Your task to perform on an android device: See recent photos Image 0: 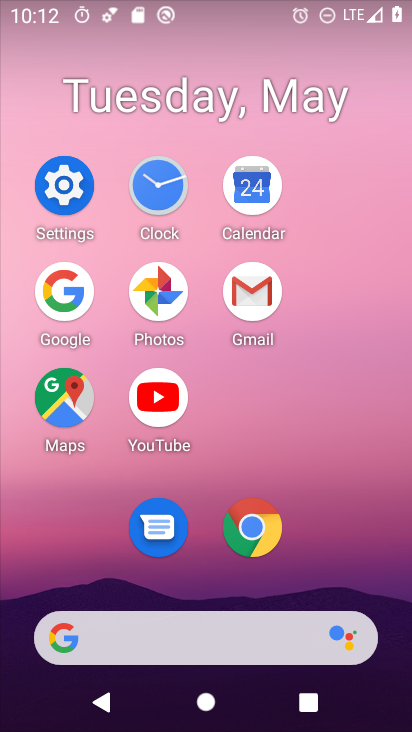
Step 0: click (140, 299)
Your task to perform on an android device: See recent photos Image 1: 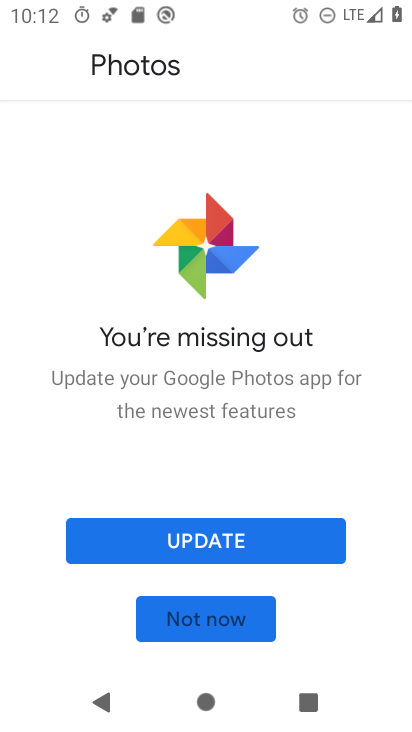
Step 1: click (197, 529)
Your task to perform on an android device: See recent photos Image 2: 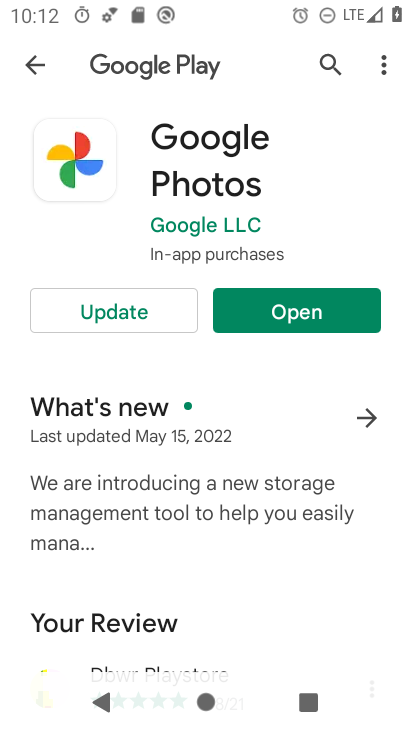
Step 2: click (157, 311)
Your task to perform on an android device: See recent photos Image 3: 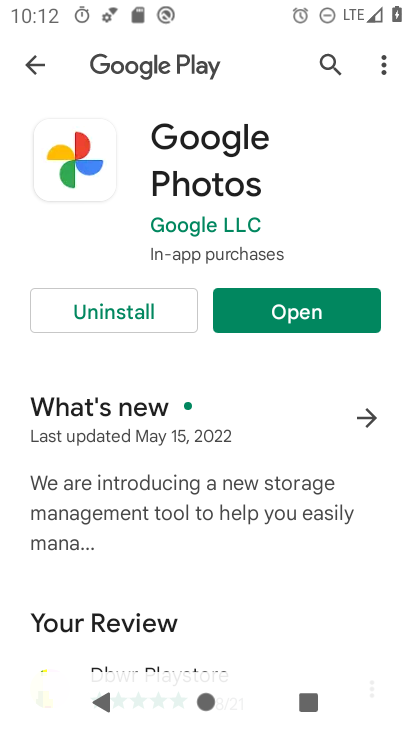
Step 3: click (301, 322)
Your task to perform on an android device: See recent photos Image 4: 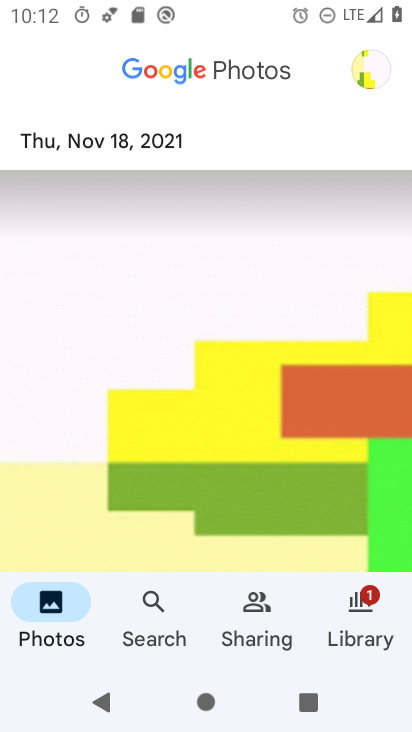
Step 4: task complete